Your task to perform on an android device: change alarm snooze length Image 0: 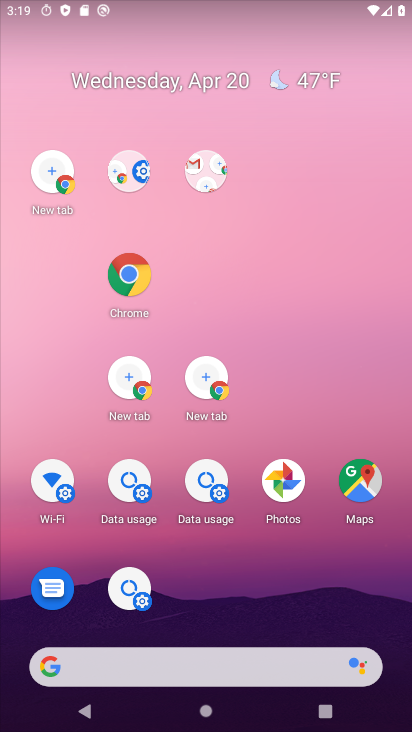
Step 0: drag from (343, 710) to (195, 144)
Your task to perform on an android device: change alarm snooze length Image 1: 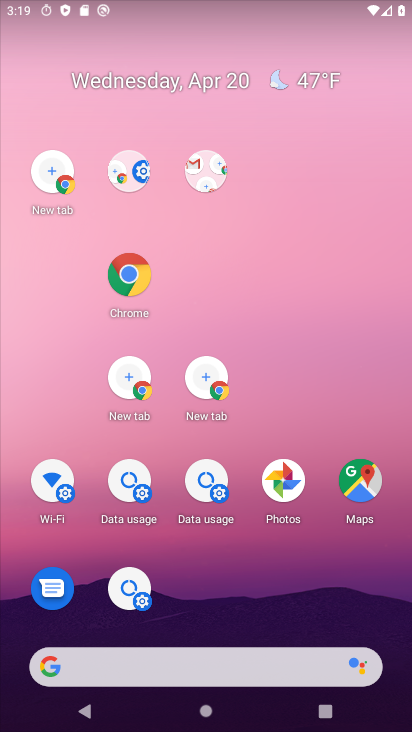
Step 1: drag from (192, 548) to (143, 229)
Your task to perform on an android device: change alarm snooze length Image 2: 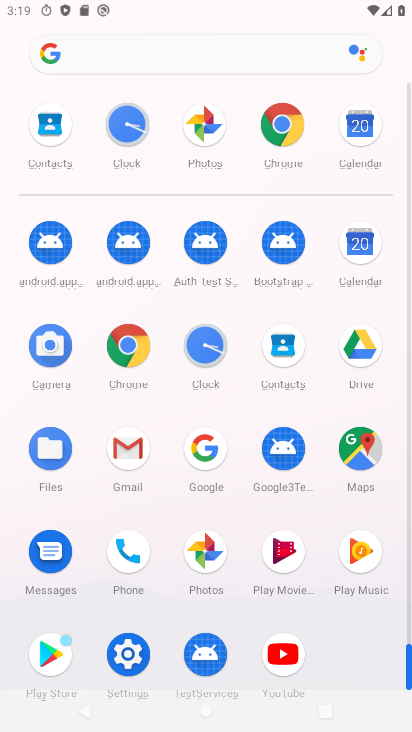
Step 2: click (192, 348)
Your task to perform on an android device: change alarm snooze length Image 3: 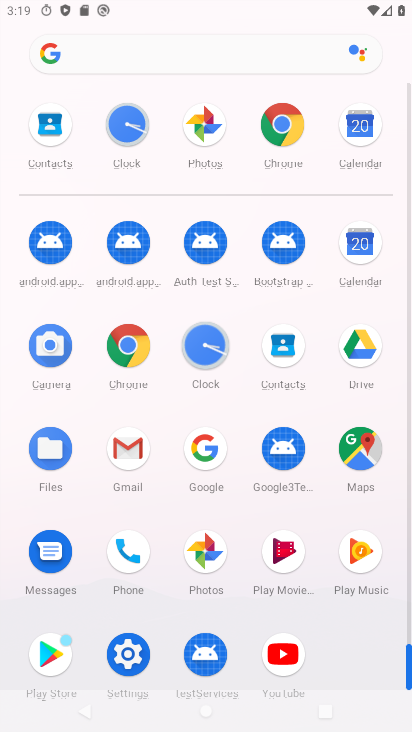
Step 3: click (192, 348)
Your task to perform on an android device: change alarm snooze length Image 4: 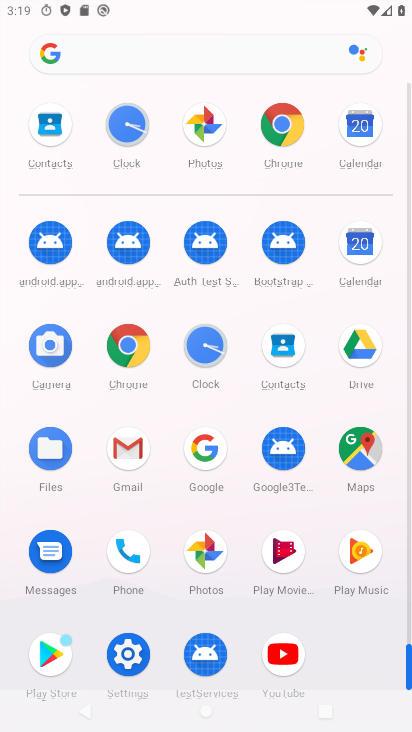
Step 4: click (212, 338)
Your task to perform on an android device: change alarm snooze length Image 5: 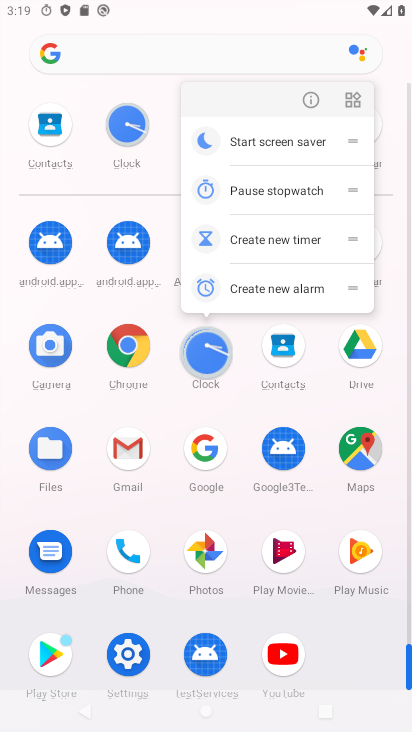
Step 5: click (211, 346)
Your task to perform on an android device: change alarm snooze length Image 6: 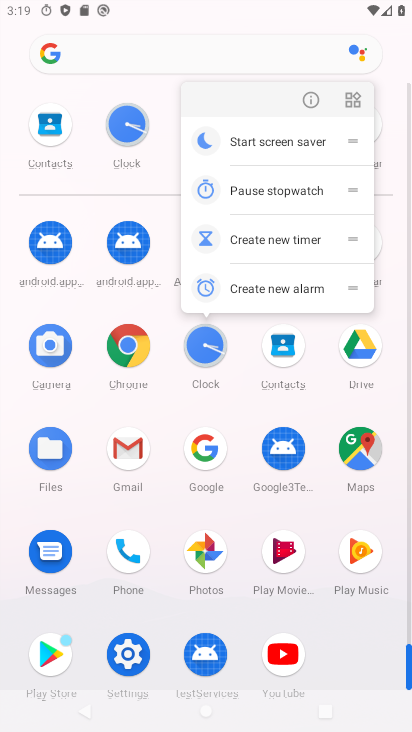
Step 6: click (271, 292)
Your task to perform on an android device: change alarm snooze length Image 7: 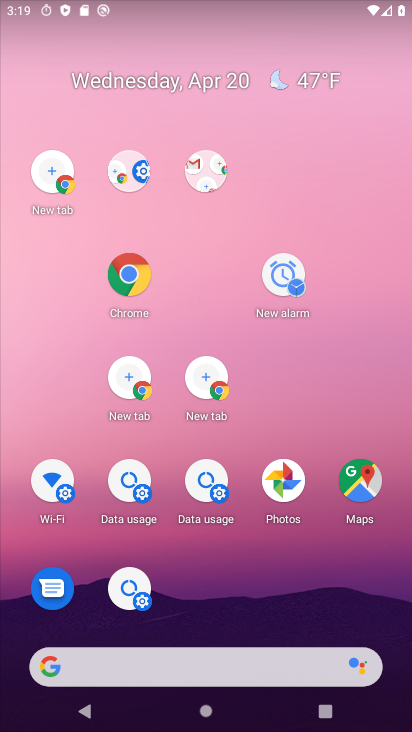
Step 7: click (286, 277)
Your task to perform on an android device: change alarm snooze length Image 8: 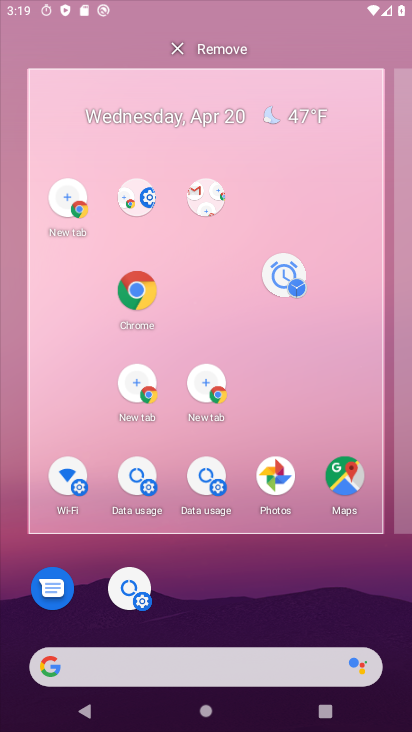
Step 8: click (286, 277)
Your task to perform on an android device: change alarm snooze length Image 9: 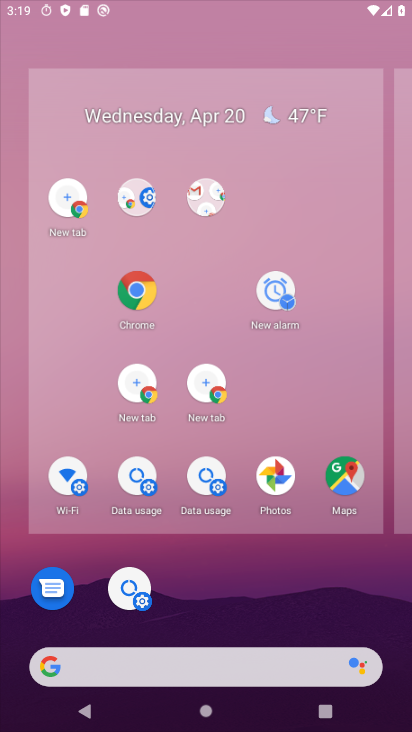
Step 9: click (286, 277)
Your task to perform on an android device: change alarm snooze length Image 10: 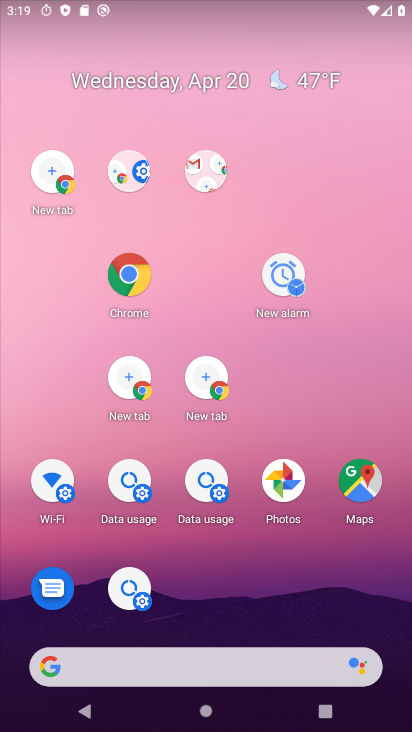
Step 10: drag from (274, 484) to (210, 142)
Your task to perform on an android device: change alarm snooze length Image 11: 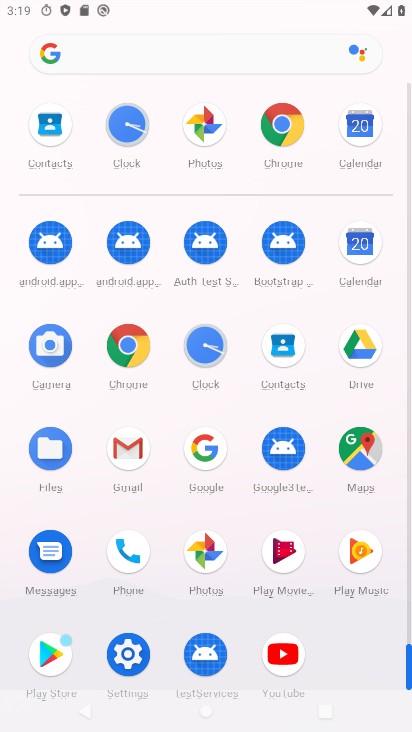
Step 11: click (205, 350)
Your task to perform on an android device: change alarm snooze length Image 12: 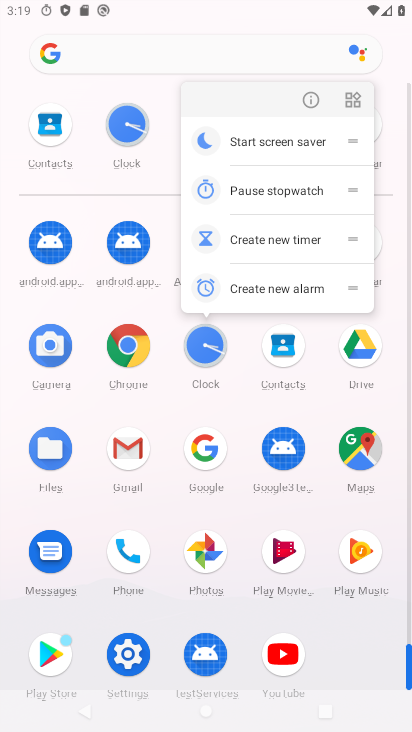
Step 12: click (204, 340)
Your task to perform on an android device: change alarm snooze length Image 13: 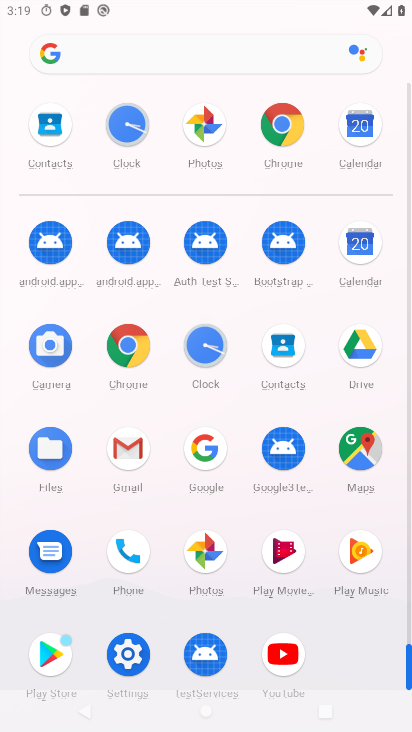
Step 13: click (209, 343)
Your task to perform on an android device: change alarm snooze length Image 14: 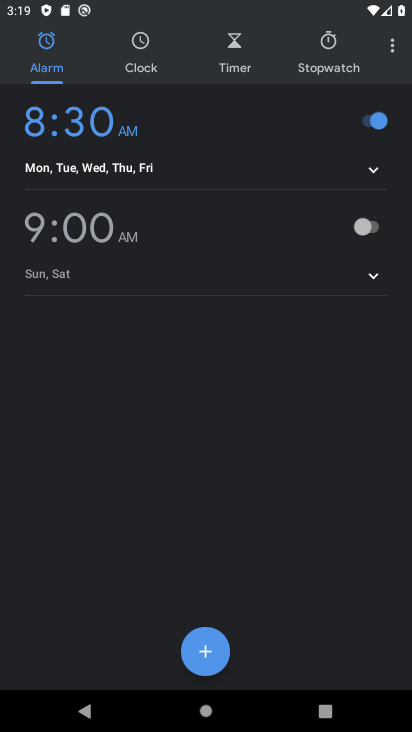
Step 14: click (209, 345)
Your task to perform on an android device: change alarm snooze length Image 15: 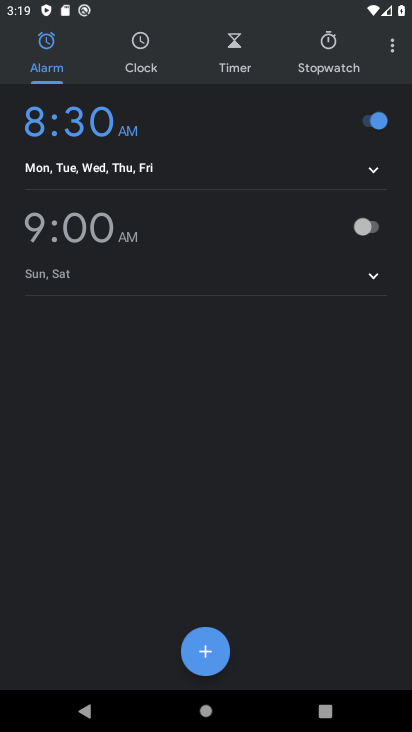
Step 15: click (218, 350)
Your task to perform on an android device: change alarm snooze length Image 16: 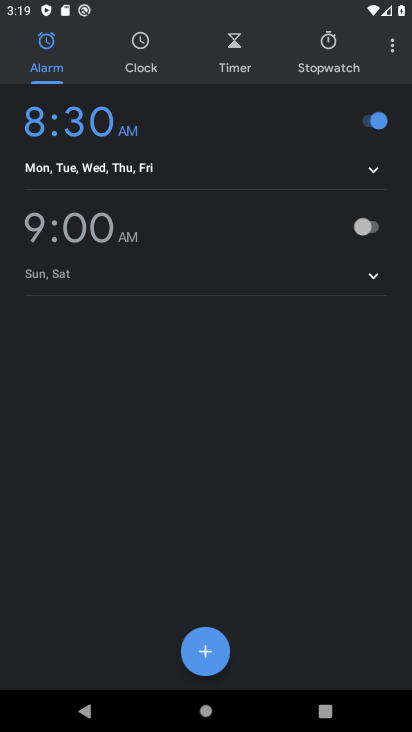
Step 16: click (218, 350)
Your task to perform on an android device: change alarm snooze length Image 17: 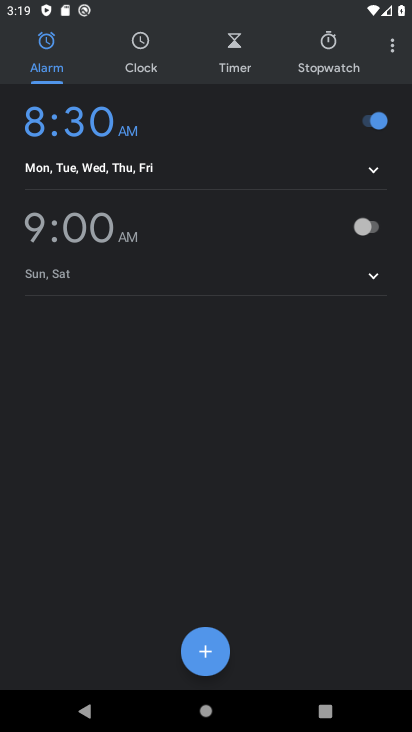
Step 17: click (395, 50)
Your task to perform on an android device: change alarm snooze length Image 18: 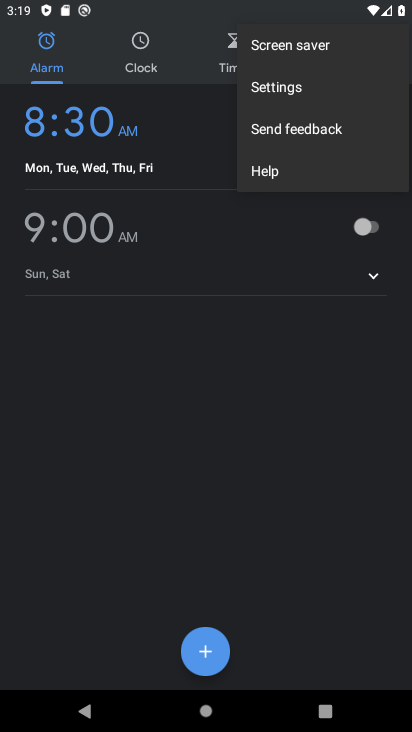
Step 18: click (389, 49)
Your task to perform on an android device: change alarm snooze length Image 19: 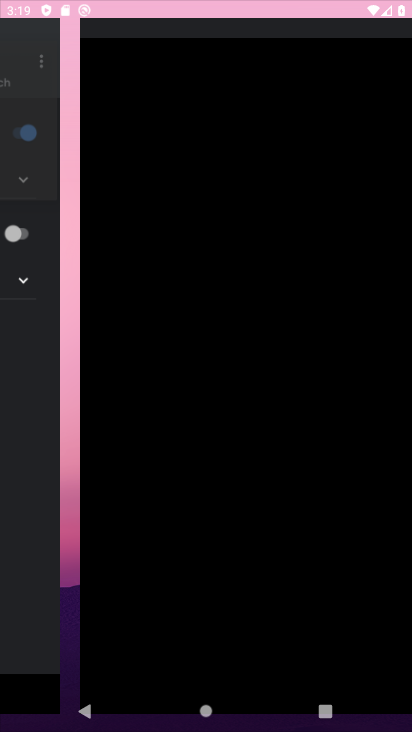
Step 19: click (285, 85)
Your task to perform on an android device: change alarm snooze length Image 20: 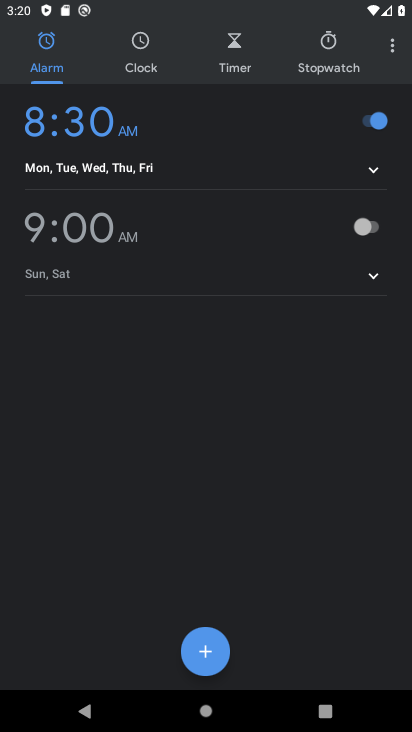
Step 20: click (393, 46)
Your task to perform on an android device: change alarm snooze length Image 21: 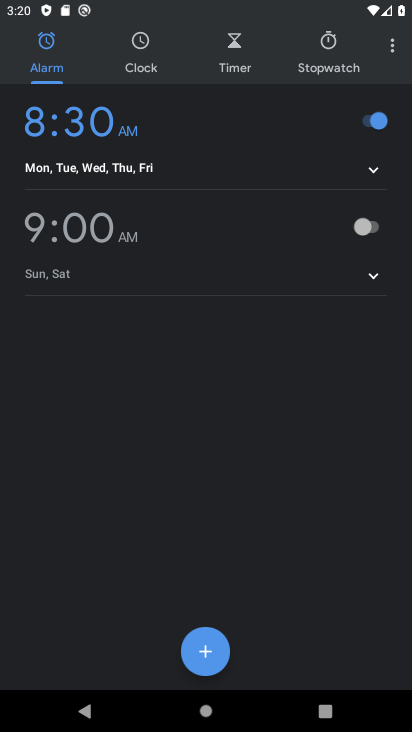
Step 21: click (393, 46)
Your task to perform on an android device: change alarm snooze length Image 22: 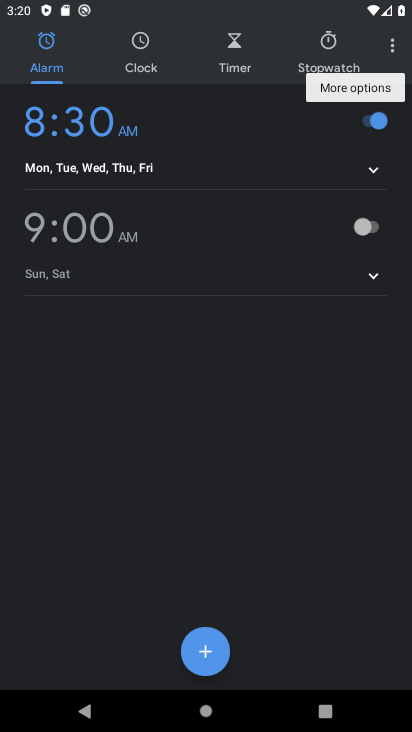
Step 22: click (393, 46)
Your task to perform on an android device: change alarm snooze length Image 23: 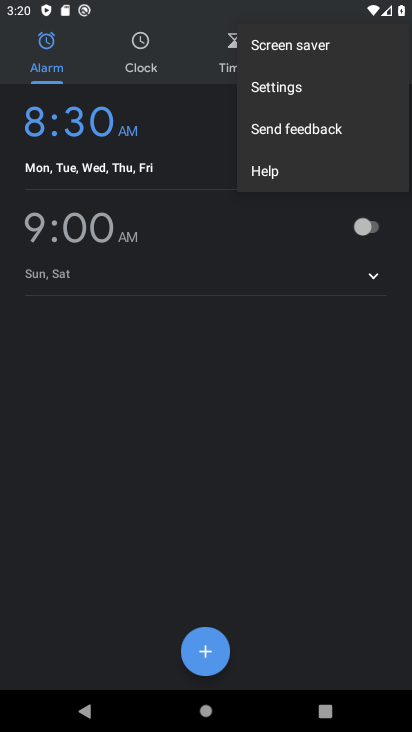
Step 23: click (394, 45)
Your task to perform on an android device: change alarm snooze length Image 24: 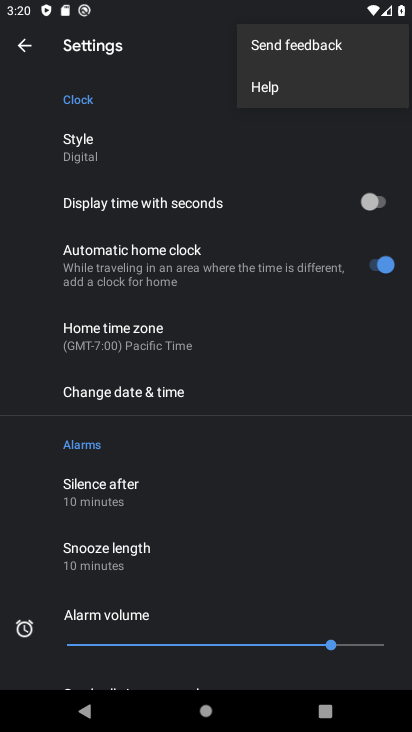
Step 24: click (112, 545)
Your task to perform on an android device: change alarm snooze length Image 25: 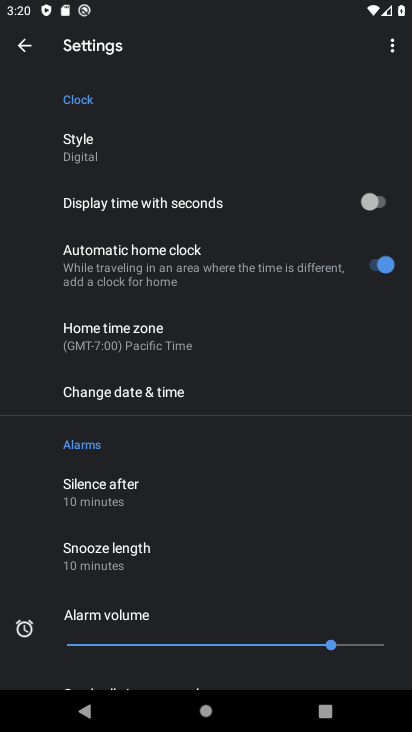
Step 25: click (112, 554)
Your task to perform on an android device: change alarm snooze length Image 26: 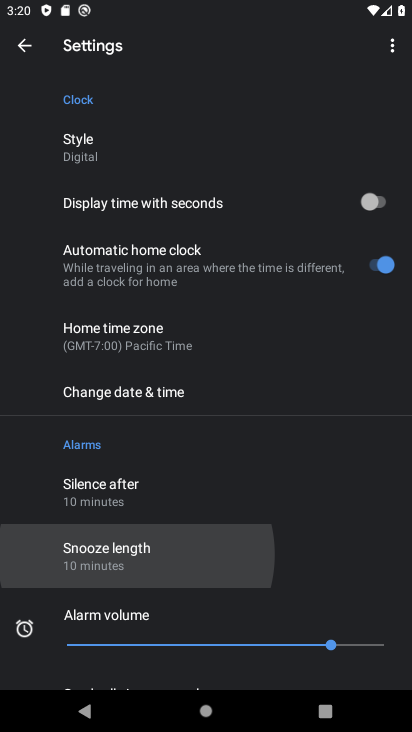
Step 26: click (114, 557)
Your task to perform on an android device: change alarm snooze length Image 27: 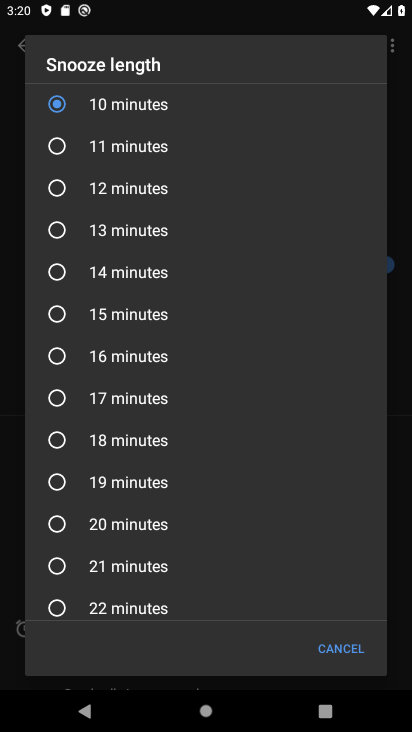
Step 27: click (65, 482)
Your task to perform on an android device: change alarm snooze length Image 28: 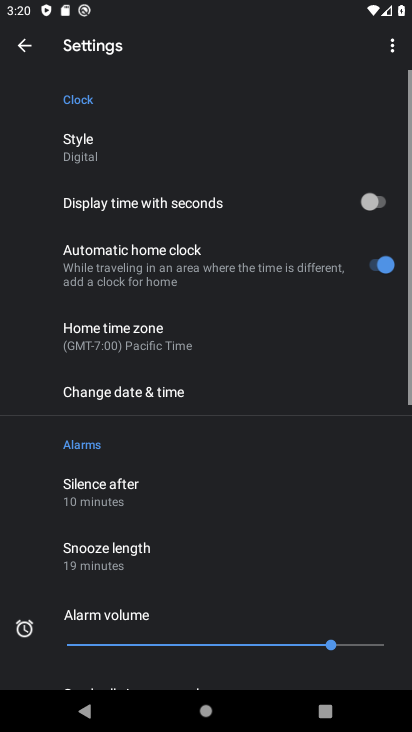
Step 28: click (64, 485)
Your task to perform on an android device: change alarm snooze length Image 29: 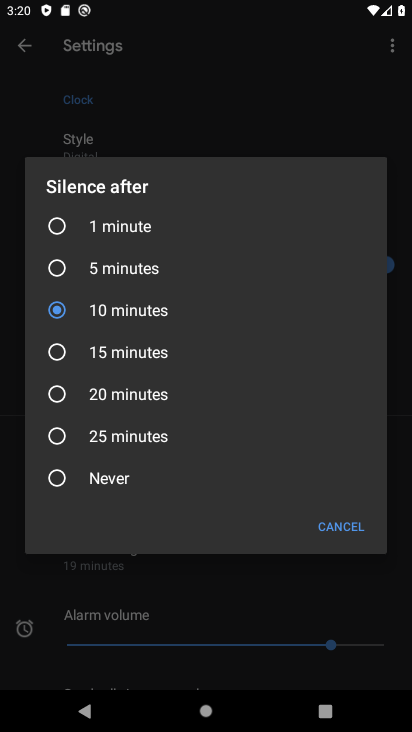
Step 29: task complete